Your task to perform on an android device: turn on location history Image 0: 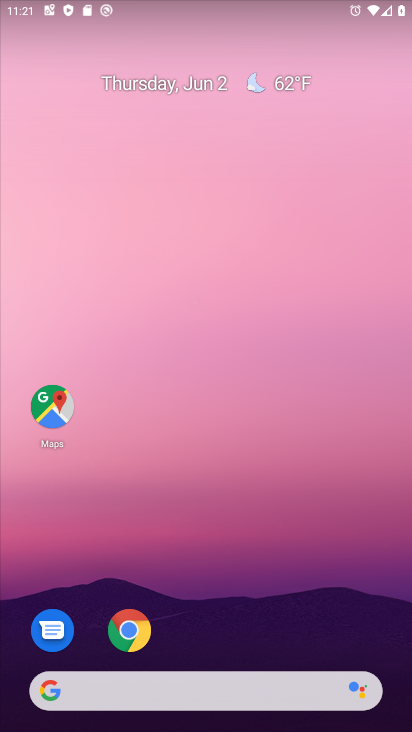
Step 0: press home button
Your task to perform on an android device: turn on location history Image 1: 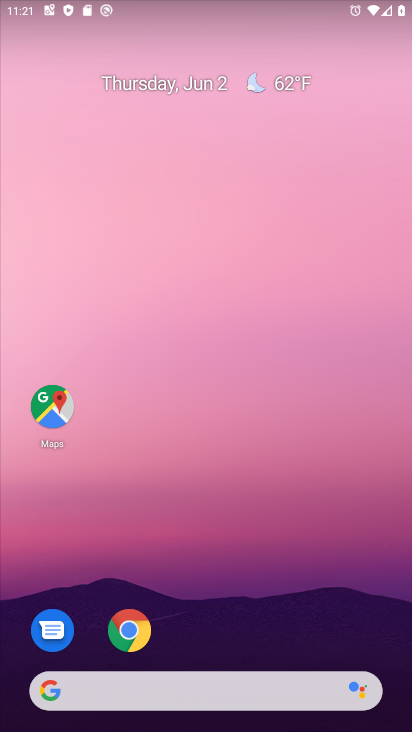
Step 1: click (45, 408)
Your task to perform on an android device: turn on location history Image 2: 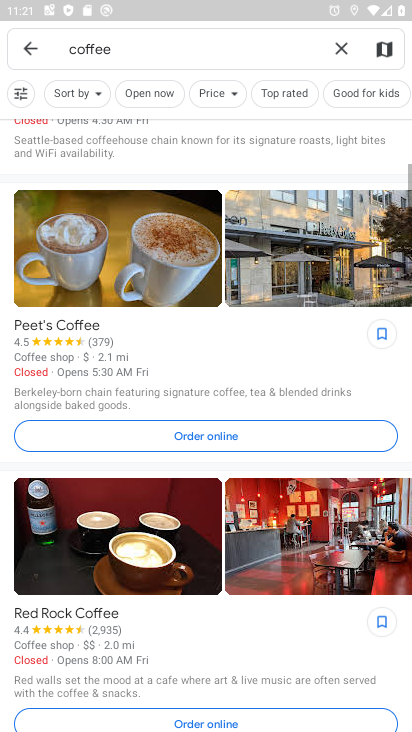
Step 2: click (30, 44)
Your task to perform on an android device: turn on location history Image 3: 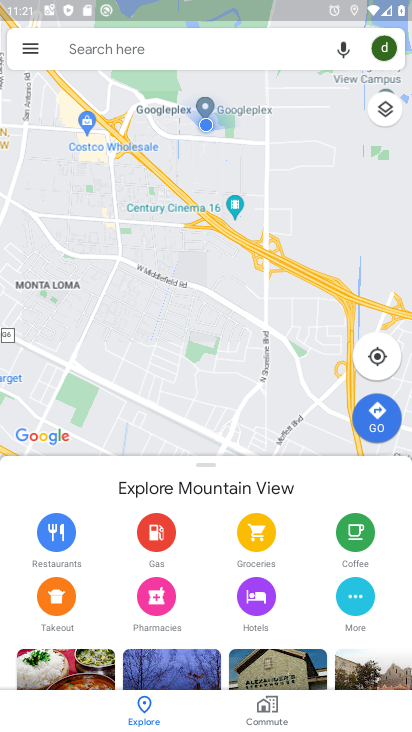
Step 3: click (32, 44)
Your task to perform on an android device: turn on location history Image 4: 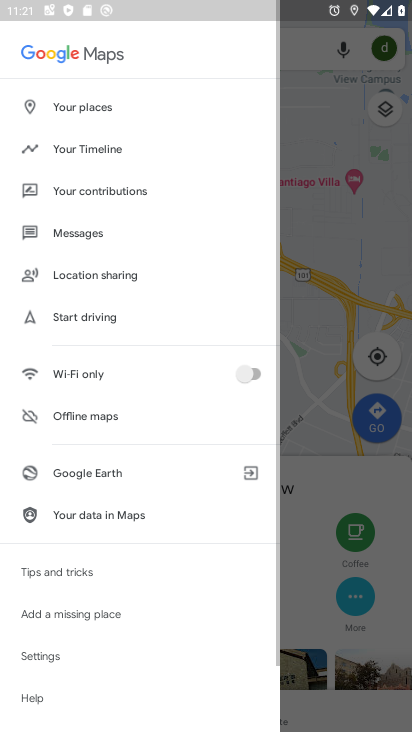
Step 4: click (88, 151)
Your task to perform on an android device: turn on location history Image 5: 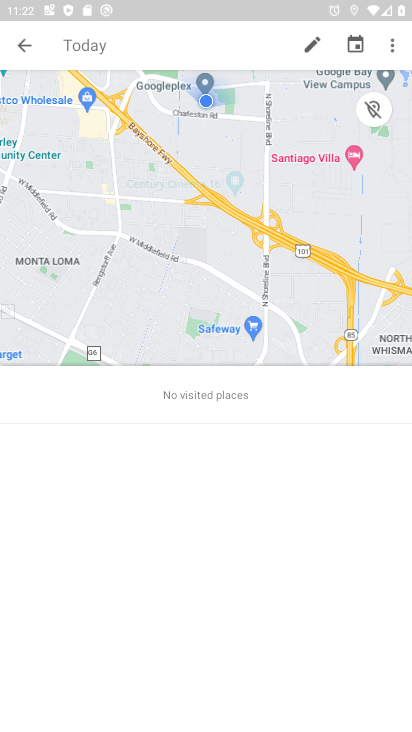
Step 5: click (392, 47)
Your task to perform on an android device: turn on location history Image 6: 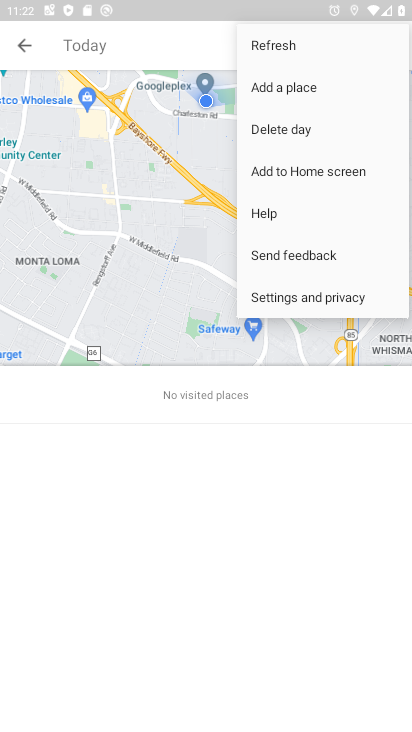
Step 6: click (292, 292)
Your task to perform on an android device: turn on location history Image 7: 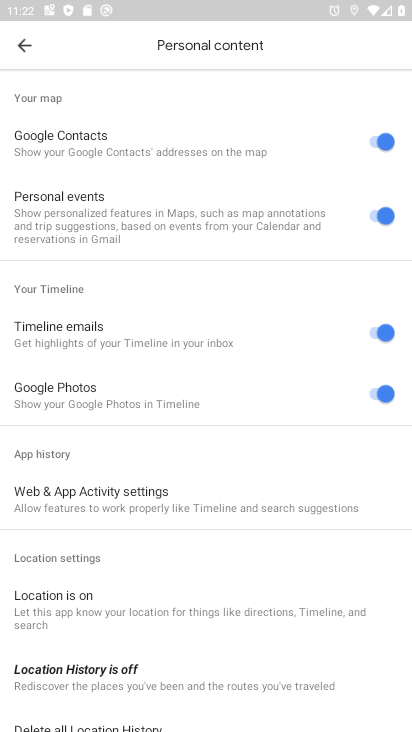
Step 7: drag from (151, 623) to (197, 331)
Your task to perform on an android device: turn on location history Image 8: 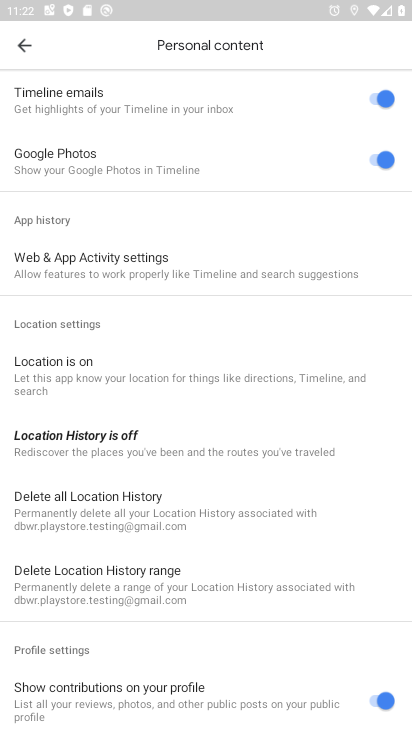
Step 8: click (120, 440)
Your task to perform on an android device: turn on location history Image 9: 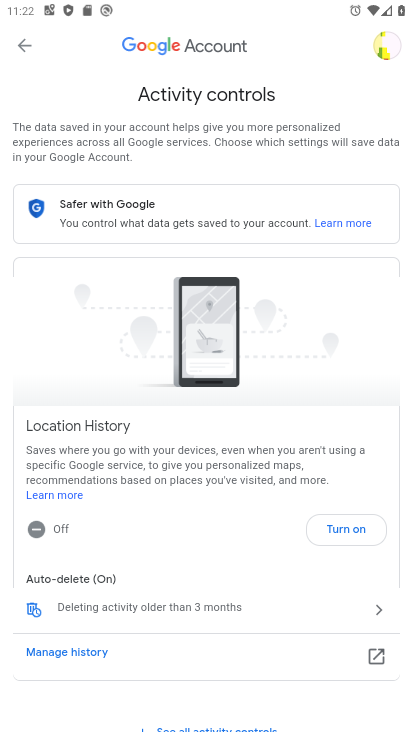
Step 9: click (359, 529)
Your task to perform on an android device: turn on location history Image 10: 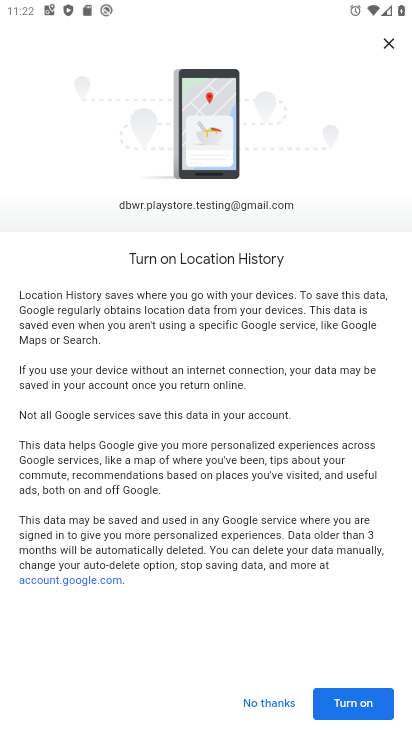
Step 10: drag from (287, 612) to (347, 130)
Your task to perform on an android device: turn on location history Image 11: 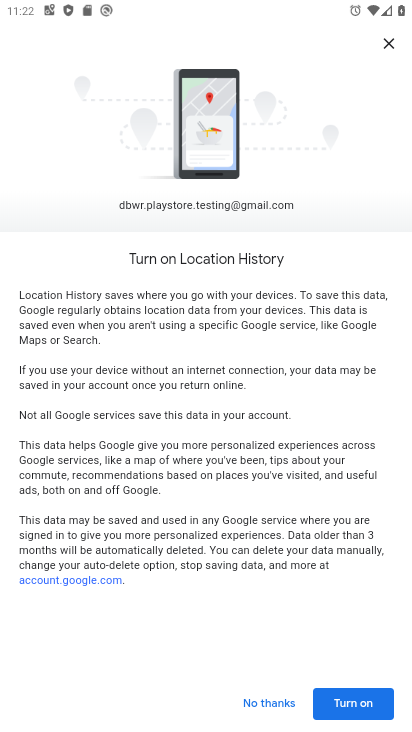
Step 11: click (361, 706)
Your task to perform on an android device: turn on location history Image 12: 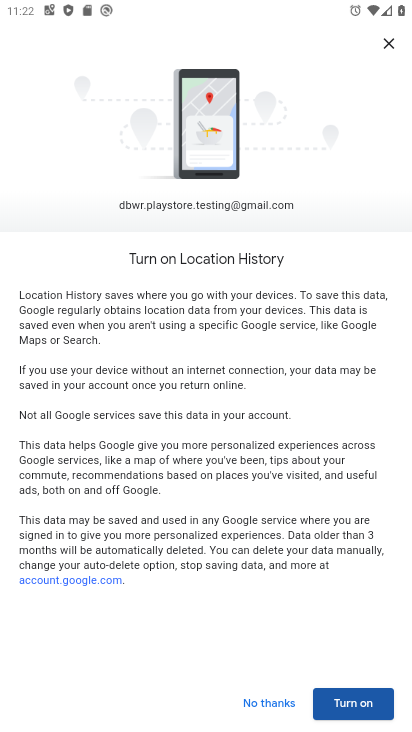
Step 12: click (353, 702)
Your task to perform on an android device: turn on location history Image 13: 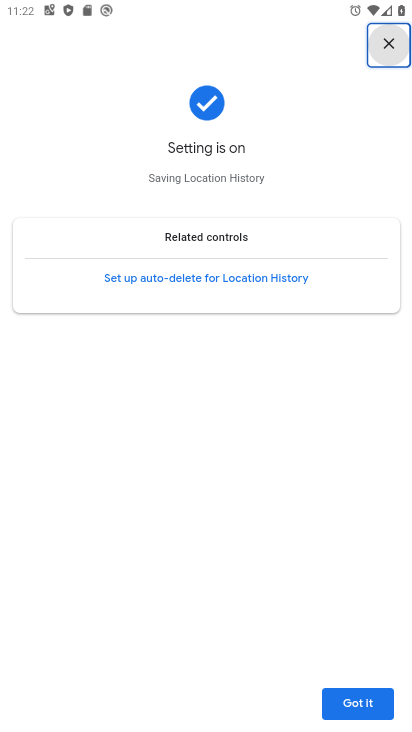
Step 13: click (359, 706)
Your task to perform on an android device: turn on location history Image 14: 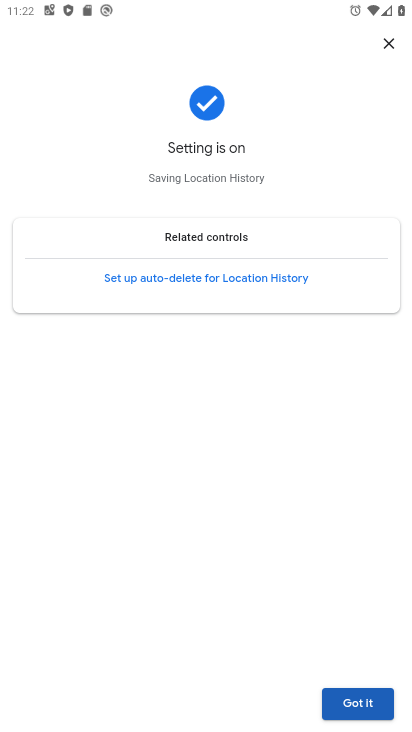
Step 14: click (351, 703)
Your task to perform on an android device: turn on location history Image 15: 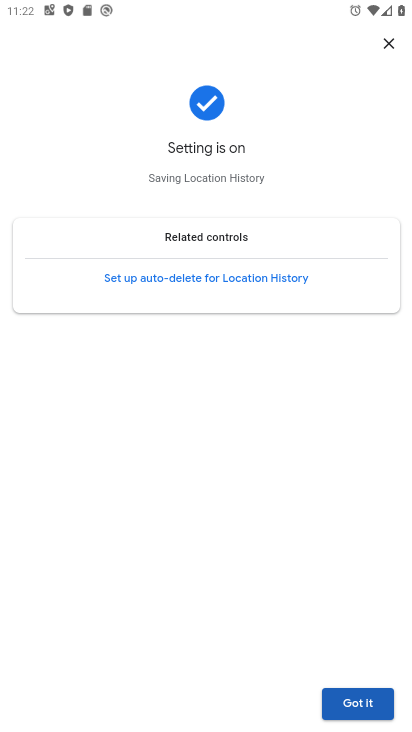
Step 15: click (366, 708)
Your task to perform on an android device: turn on location history Image 16: 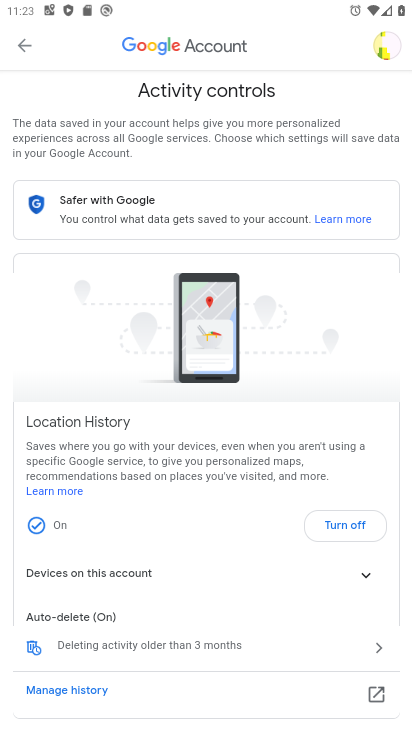
Step 16: task complete